Your task to perform on an android device: turn off location history Image 0: 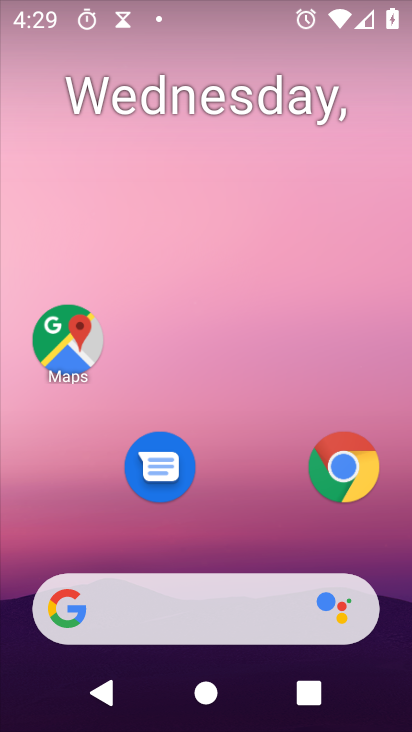
Step 0: drag from (236, 529) to (350, 10)
Your task to perform on an android device: turn off location history Image 1: 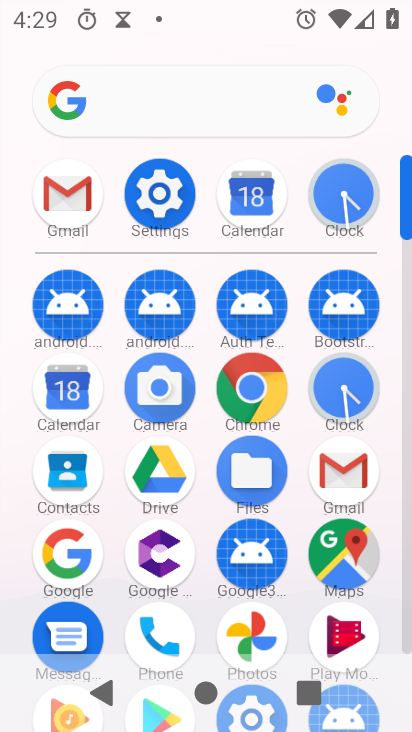
Step 1: click (169, 211)
Your task to perform on an android device: turn off location history Image 2: 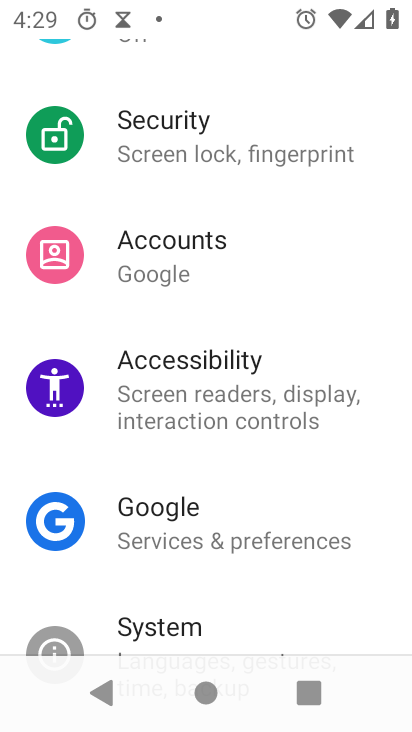
Step 2: drag from (261, 611) to (188, 238)
Your task to perform on an android device: turn off location history Image 3: 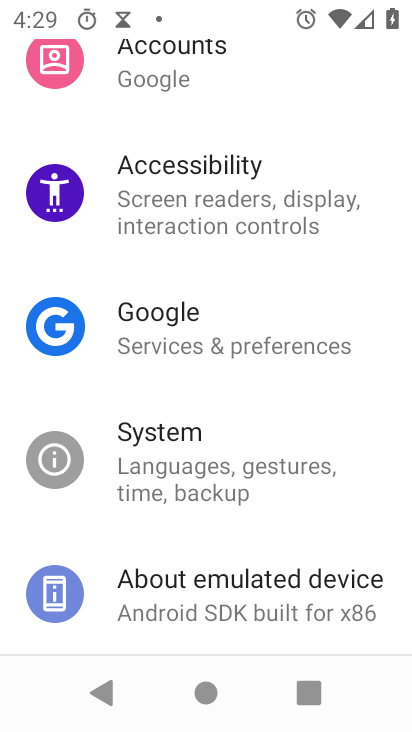
Step 3: drag from (274, 116) to (291, 667)
Your task to perform on an android device: turn off location history Image 4: 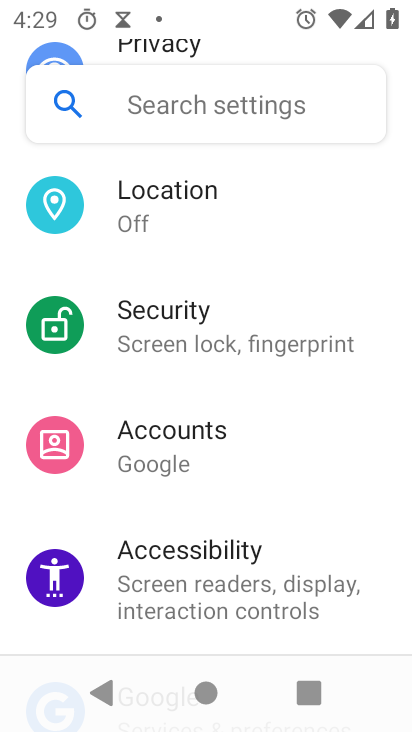
Step 4: click (215, 197)
Your task to perform on an android device: turn off location history Image 5: 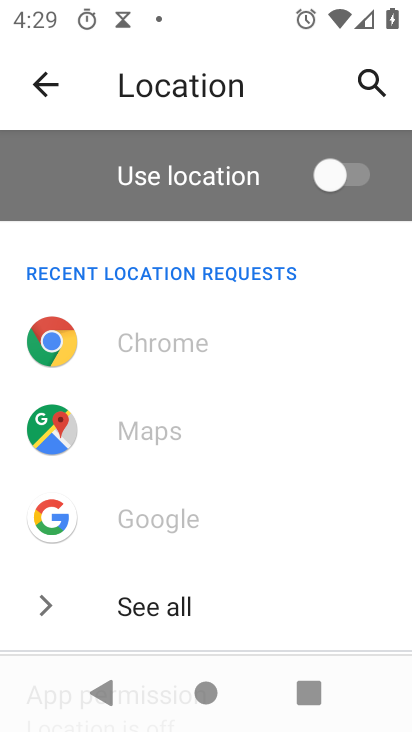
Step 5: task complete